Your task to perform on an android device: Open notification settings Image 0: 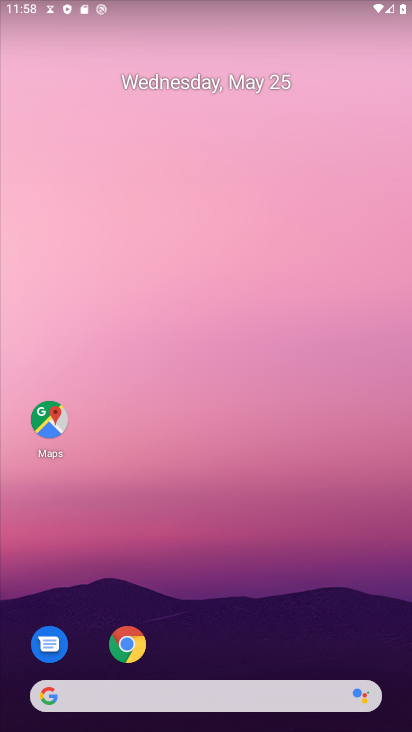
Step 0: drag from (240, 630) to (273, 84)
Your task to perform on an android device: Open notification settings Image 1: 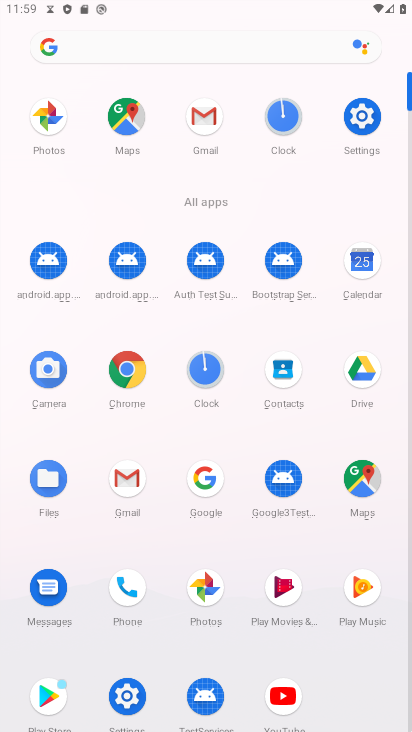
Step 1: click (362, 114)
Your task to perform on an android device: Open notification settings Image 2: 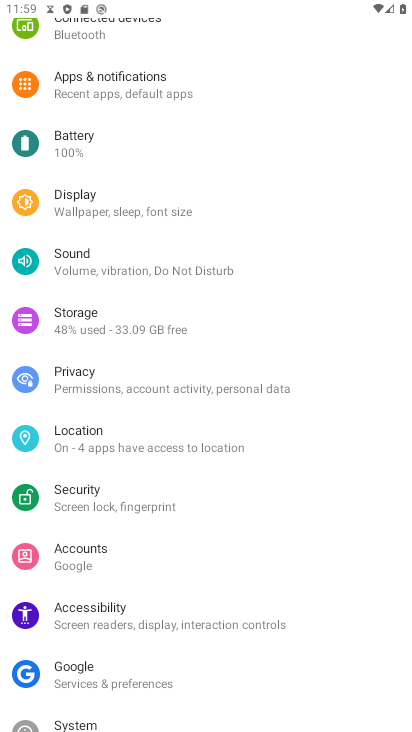
Step 2: click (152, 82)
Your task to perform on an android device: Open notification settings Image 3: 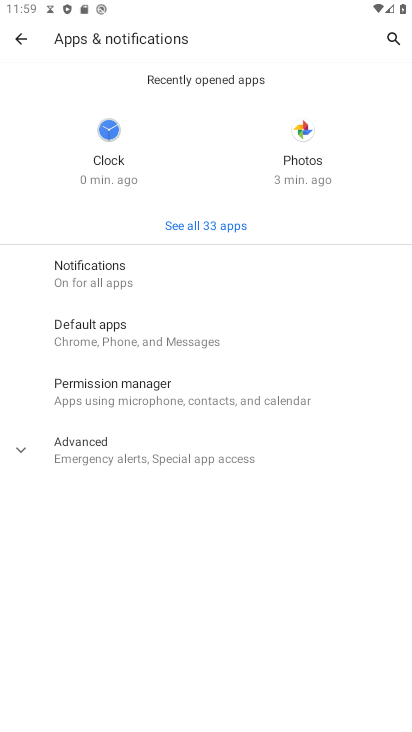
Step 3: click (119, 272)
Your task to perform on an android device: Open notification settings Image 4: 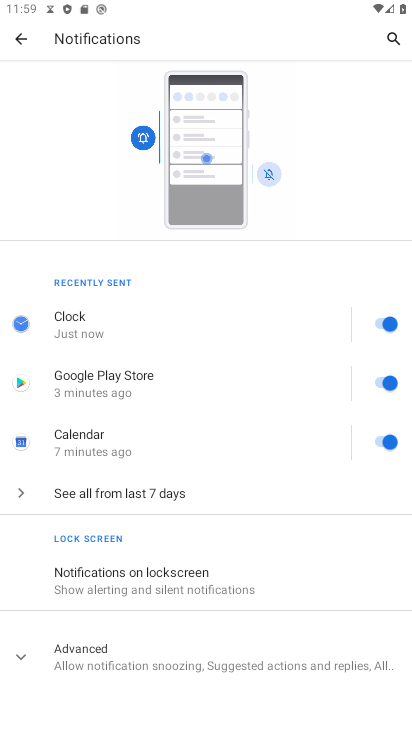
Step 4: task complete